Your task to perform on an android device: change the clock display to digital Image 0: 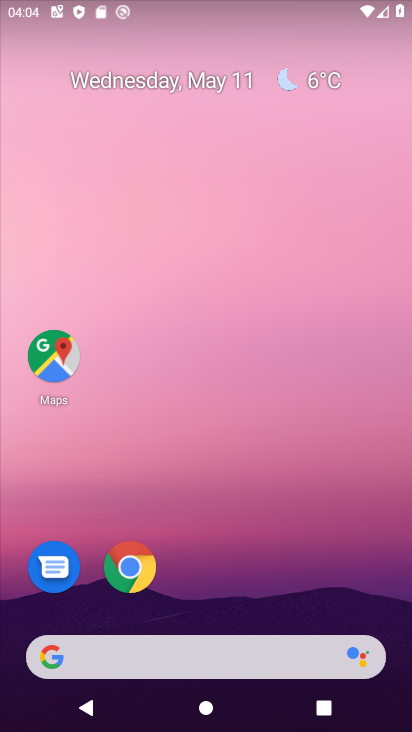
Step 0: drag from (277, 602) to (277, 220)
Your task to perform on an android device: change the clock display to digital Image 1: 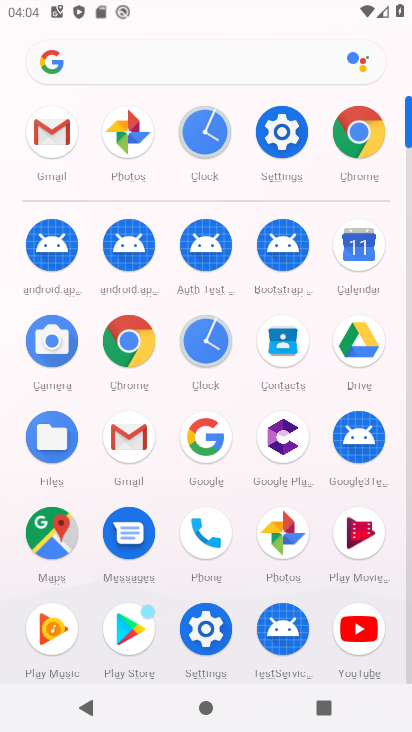
Step 1: click (211, 330)
Your task to perform on an android device: change the clock display to digital Image 2: 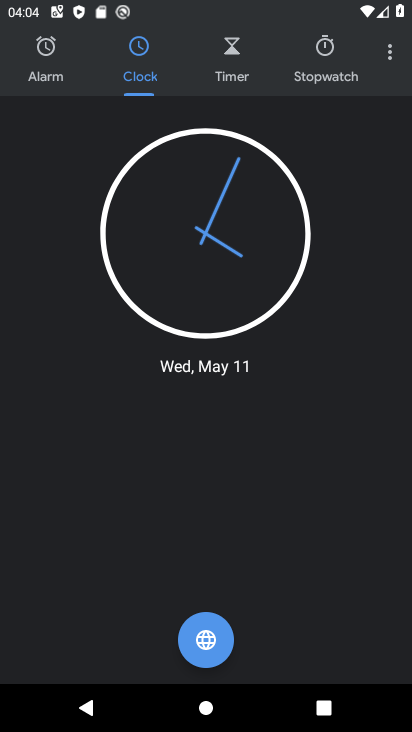
Step 2: click (387, 54)
Your task to perform on an android device: change the clock display to digital Image 3: 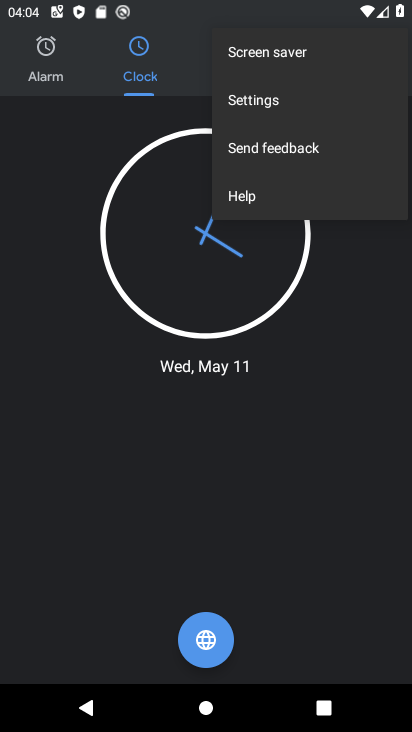
Step 3: click (275, 103)
Your task to perform on an android device: change the clock display to digital Image 4: 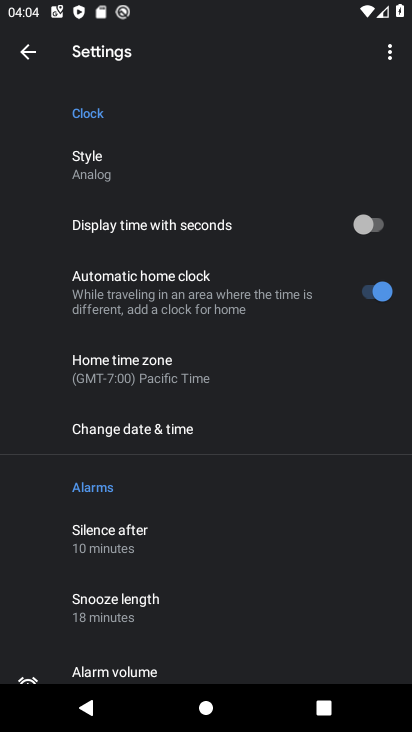
Step 4: click (110, 166)
Your task to perform on an android device: change the clock display to digital Image 5: 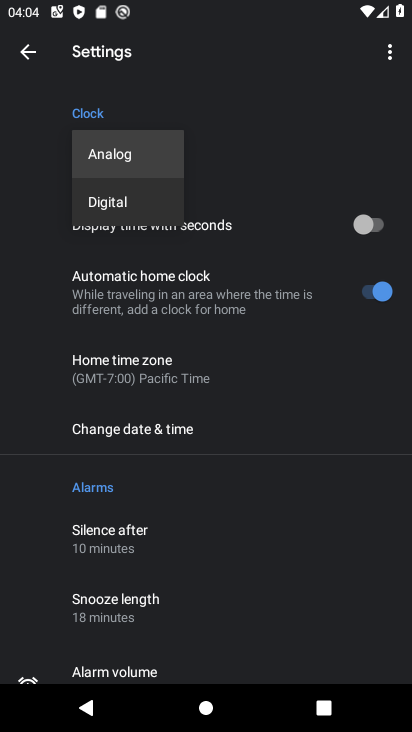
Step 5: click (133, 205)
Your task to perform on an android device: change the clock display to digital Image 6: 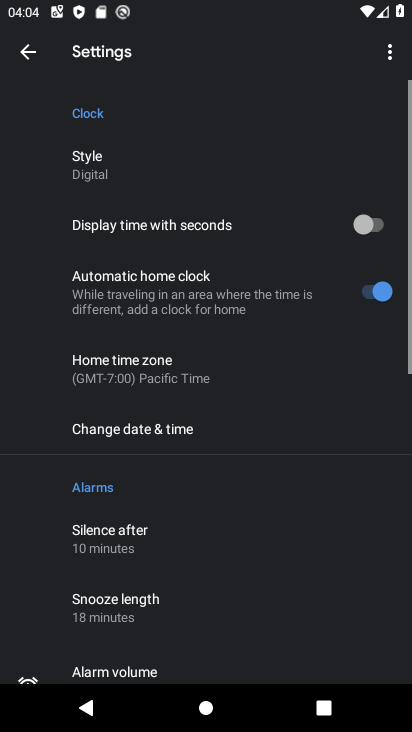
Step 6: task complete